Your task to perform on an android device: What is the news today? Image 0: 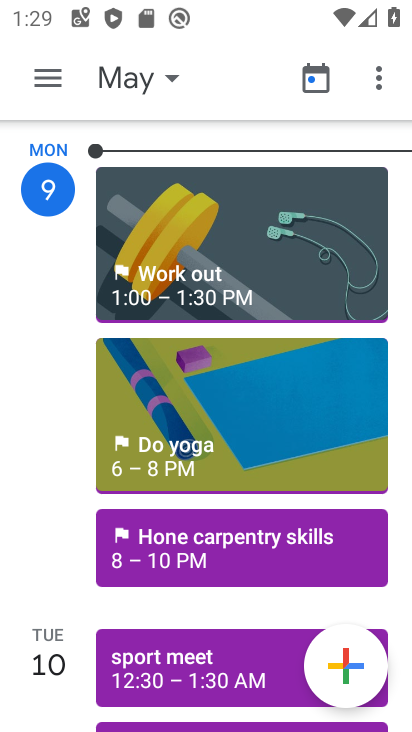
Step 0: press home button
Your task to perform on an android device: What is the news today? Image 1: 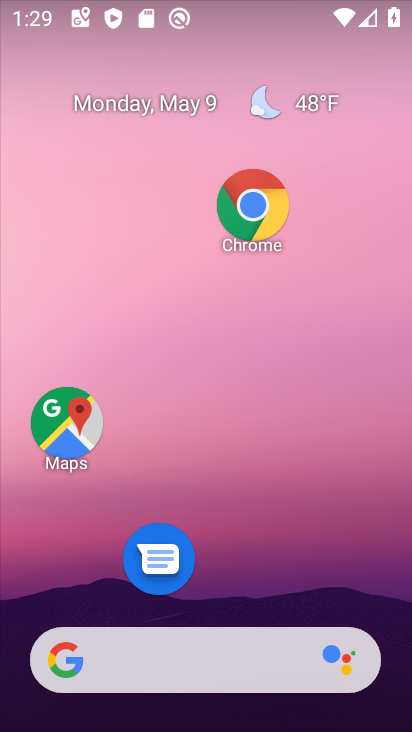
Step 1: click (356, 206)
Your task to perform on an android device: What is the news today? Image 2: 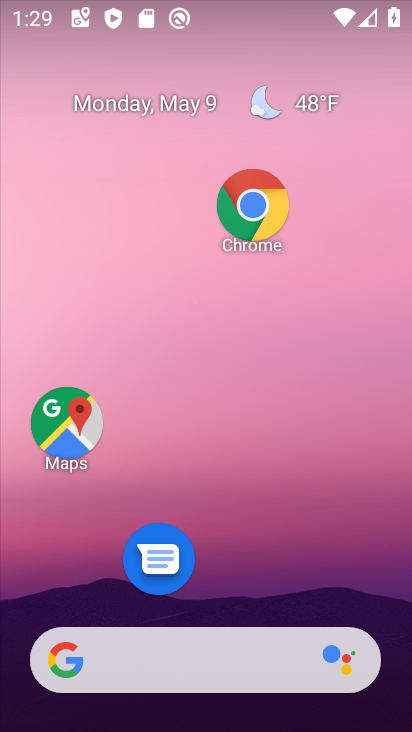
Step 2: drag from (266, 565) to (302, 153)
Your task to perform on an android device: What is the news today? Image 3: 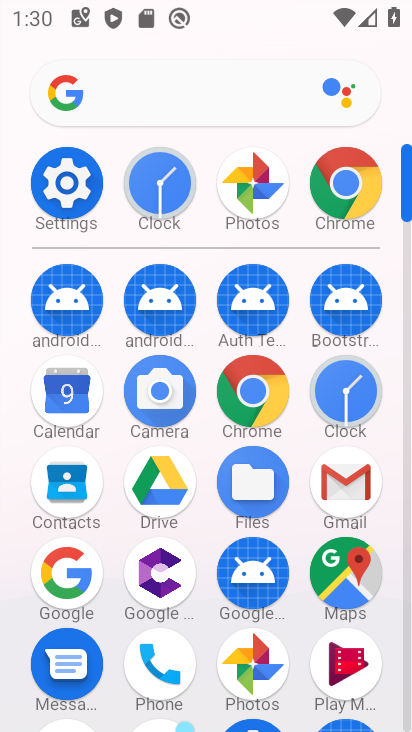
Step 3: drag from (298, 628) to (308, 89)
Your task to perform on an android device: What is the news today? Image 4: 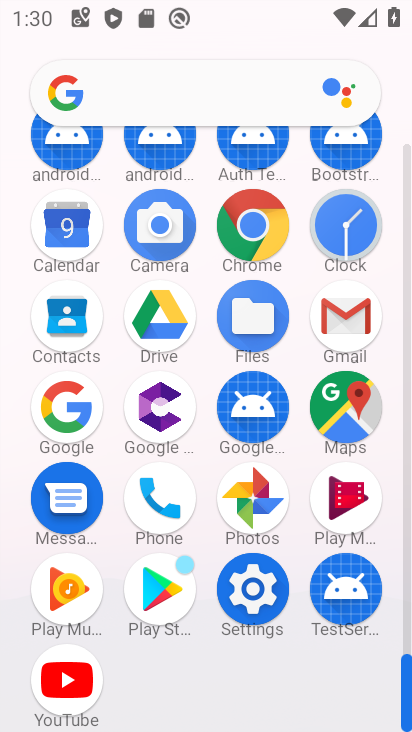
Step 4: click (243, 218)
Your task to perform on an android device: What is the news today? Image 5: 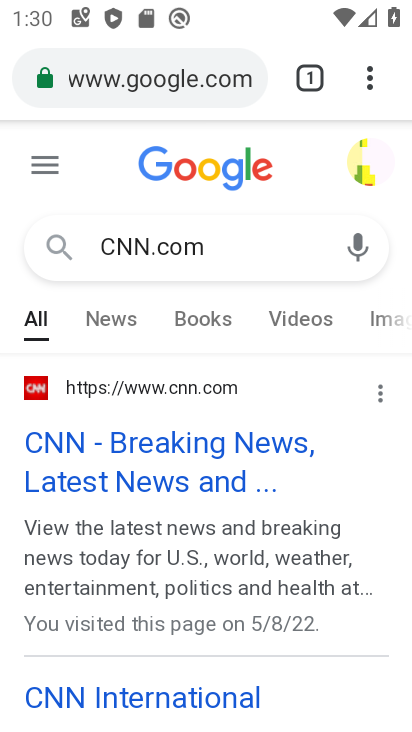
Step 5: click (230, 254)
Your task to perform on an android device: What is the news today? Image 6: 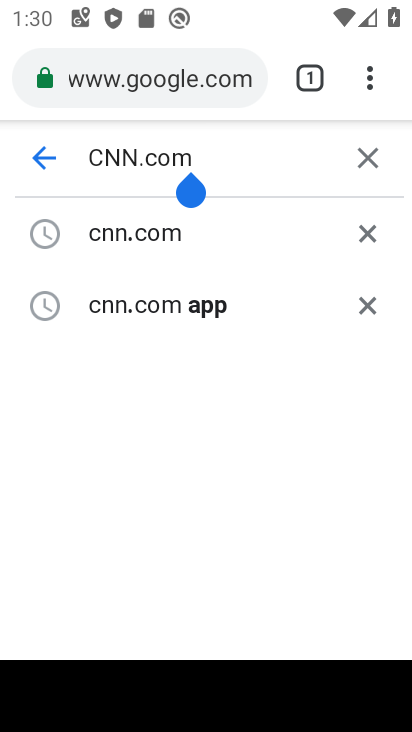
Step 6: click (367, 152)
Your task to perform on an android device: What is the news today? Image 7: 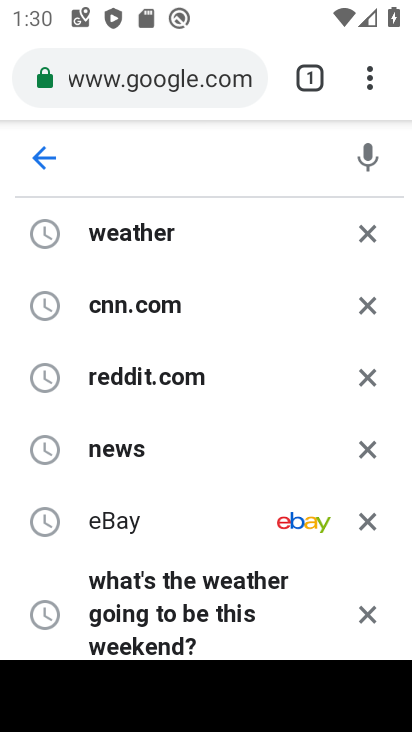
Step 7: click (176, 151)
Your task to perform on an android device: What is the news today? Image 8: 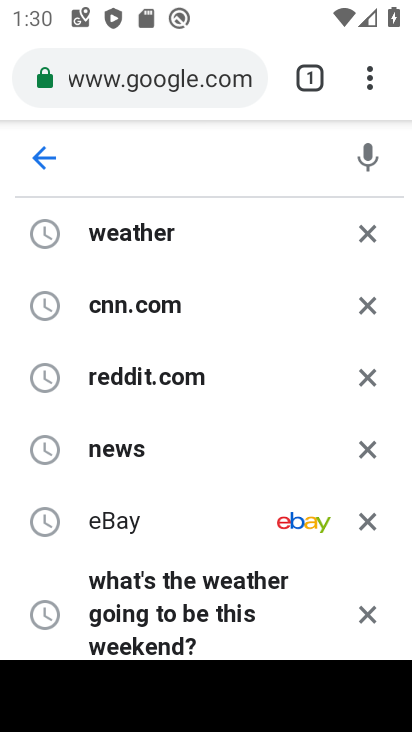
Step 8: type "What is the news today?"
Your task to perform on an android device: What is the news today? Image 9: 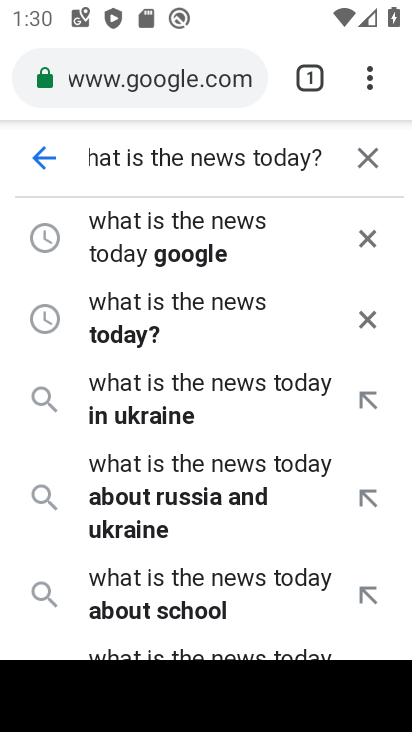
Step 9: click (211, 218)
Your task to perform on an android device: What is the news today? Image 10: 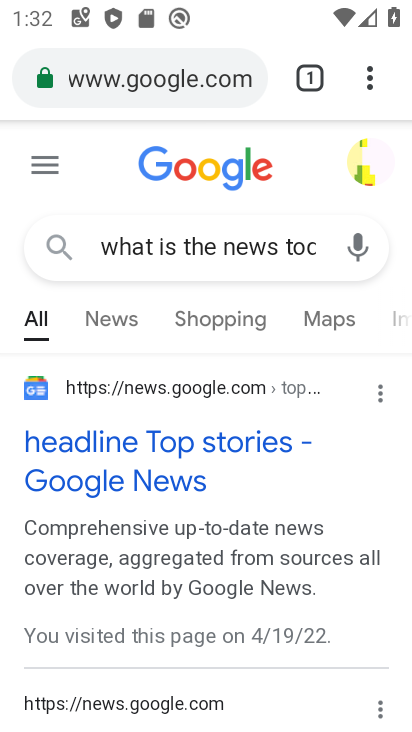
Step 10: task complete